Your task to perform on an android device: Open Yahoo.com Image 0: 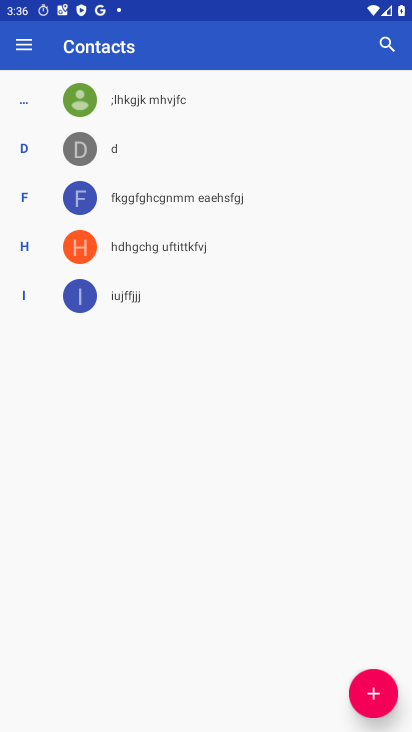
Step 0: press home button
Your task to perform on an android device: Open Yahoo.com Image 1: 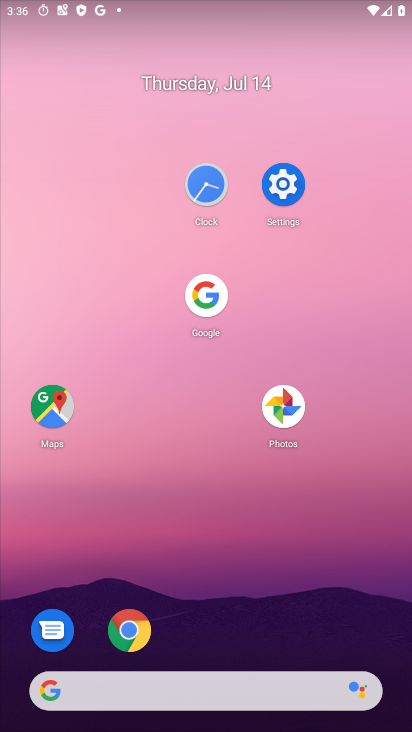
Step 1: click (139, 636)
Your task to perform on an android device: Open Yahoo.com Image 2: 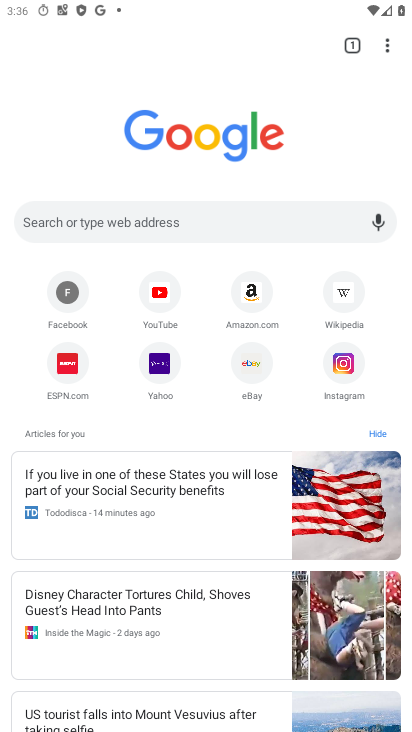
Step 2: click (157, 358)
Your task to perform on an android device: Open Yahoo.com Image 3: 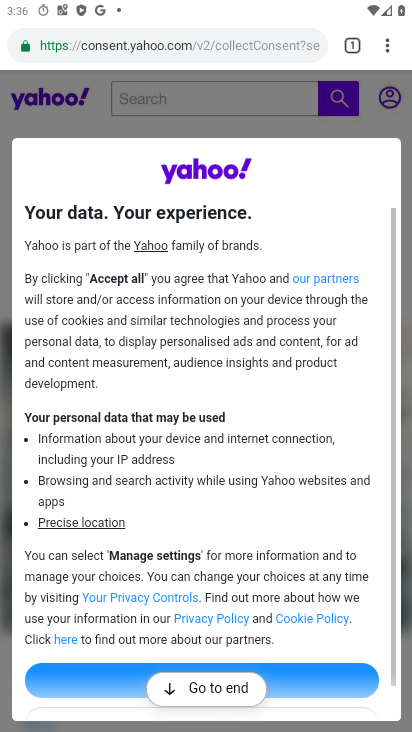
Step 3: task complete